Your task to perform on an android device: Open network settings Image 0: 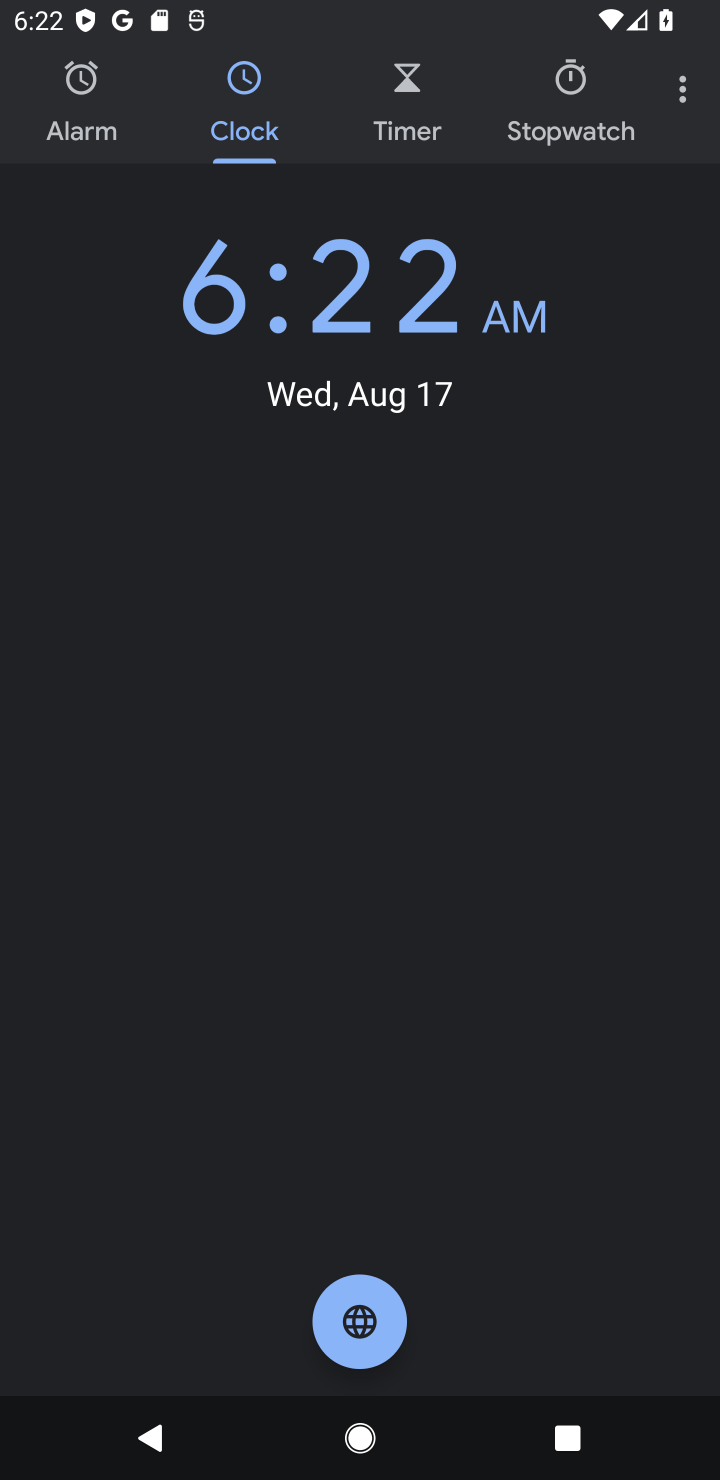
Step 0: press home button
Your task to perform on an android device: Open network settings Image 1: 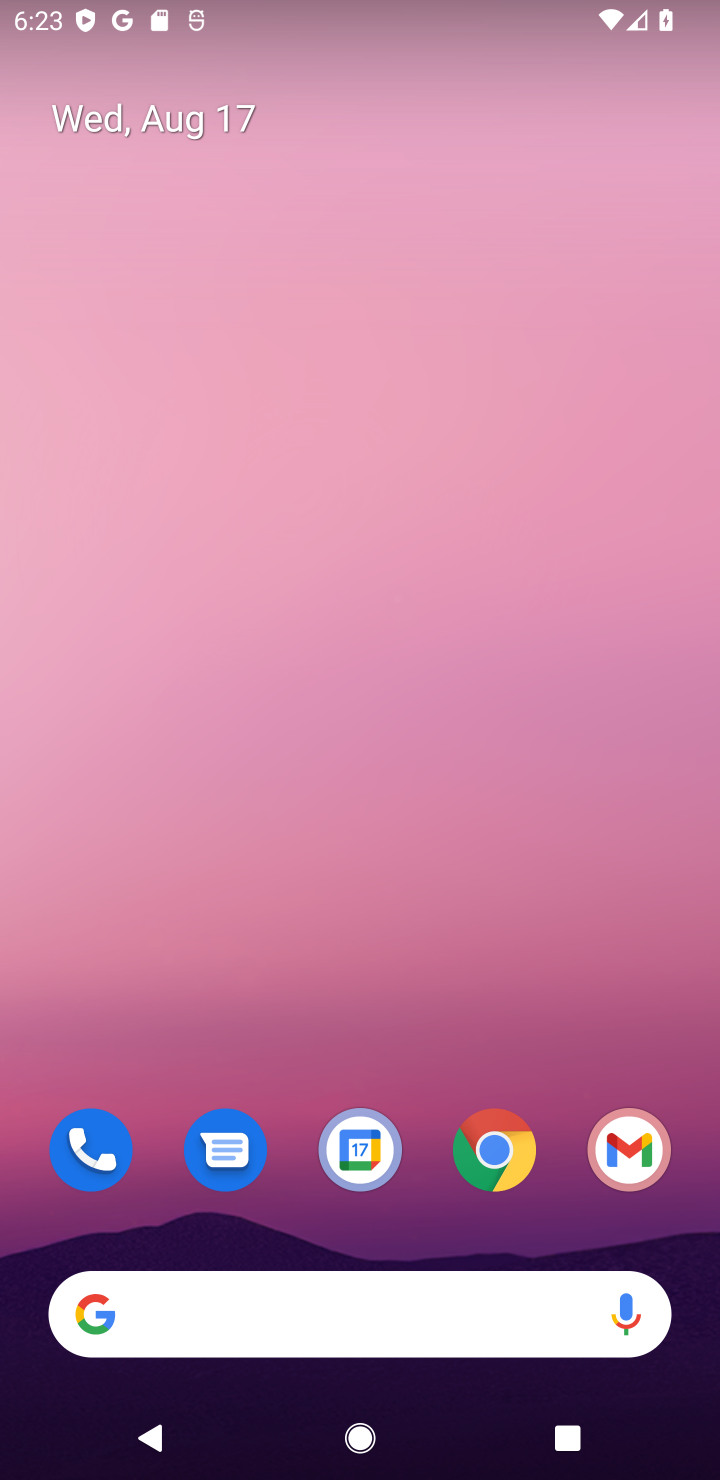
Step 1: drag from (280, 1279) to (351, 223)
Your task to perform on an android device: Open network settings Image 2: 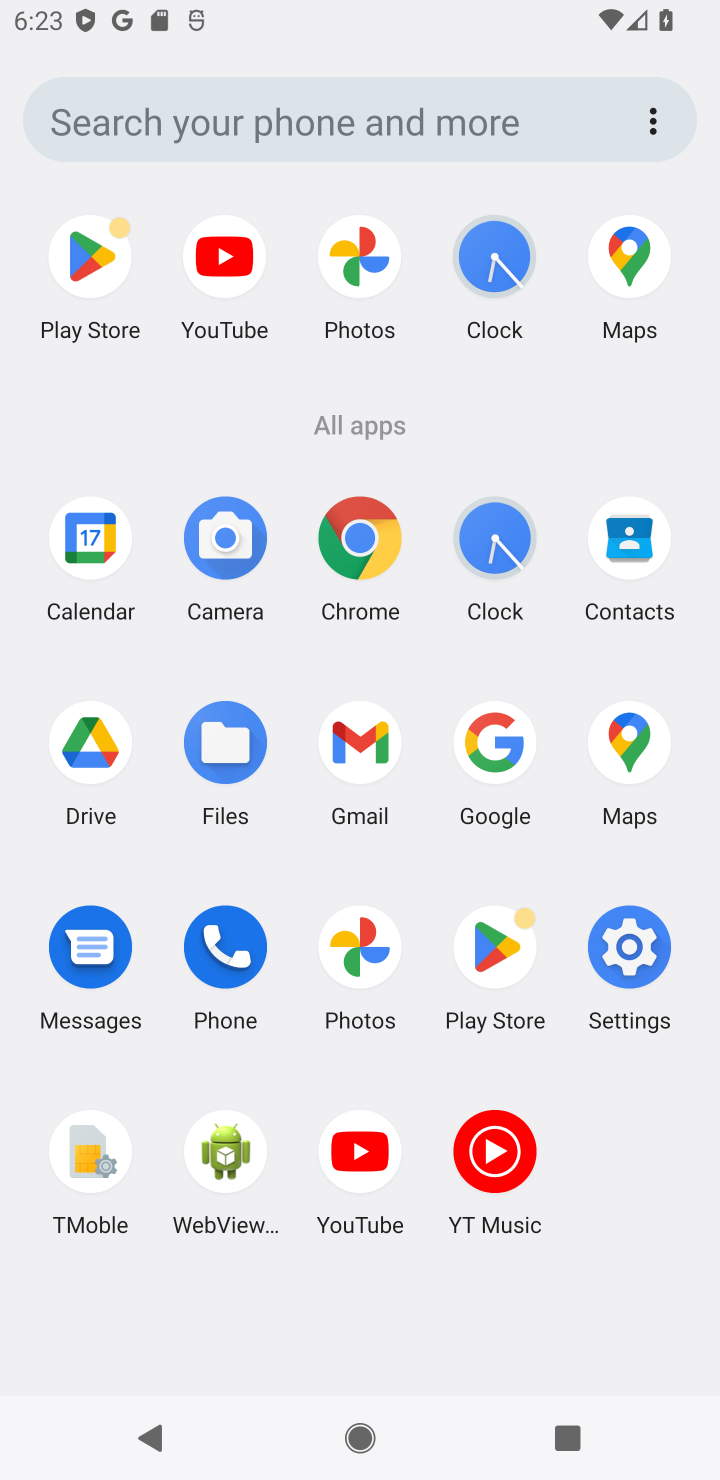
Step 2: click (638, 952)
Your task to perform on an android device: Open network settings Image 3: 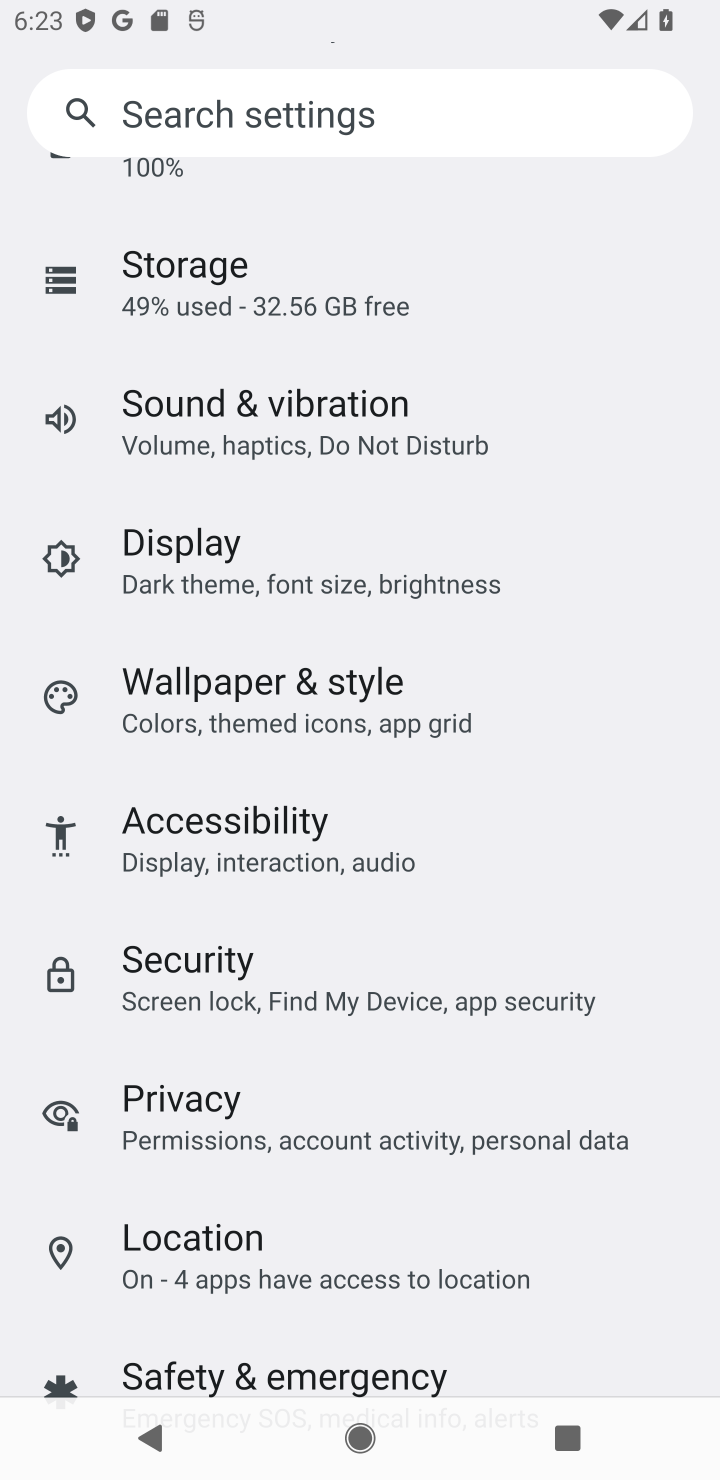
Step 3: drag from (263, 291) to (267, 1136)
Your task to perform on an android device: Open network settings Image 4: 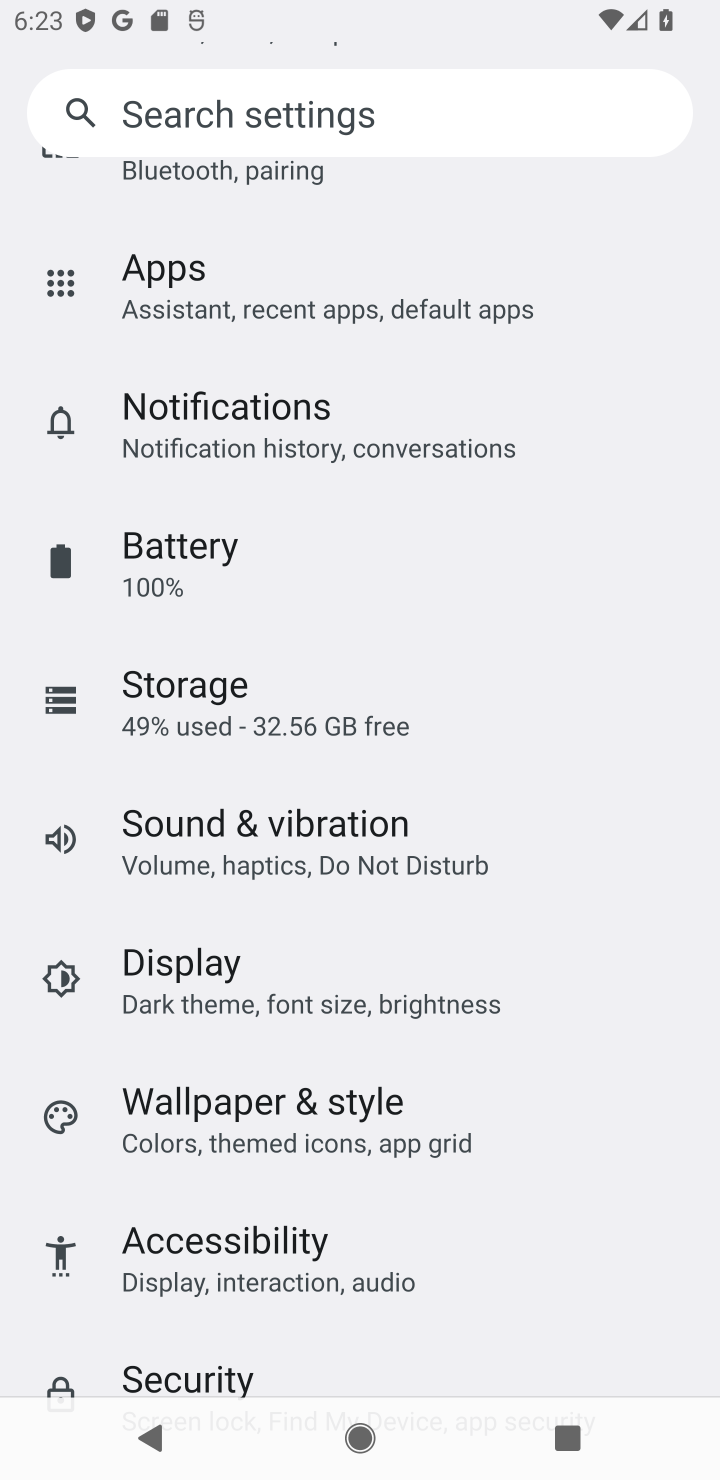
Step 4: drag from (316, 518) to (338, 1180)
Your task to perform on an android device: Open network settings Image 5: 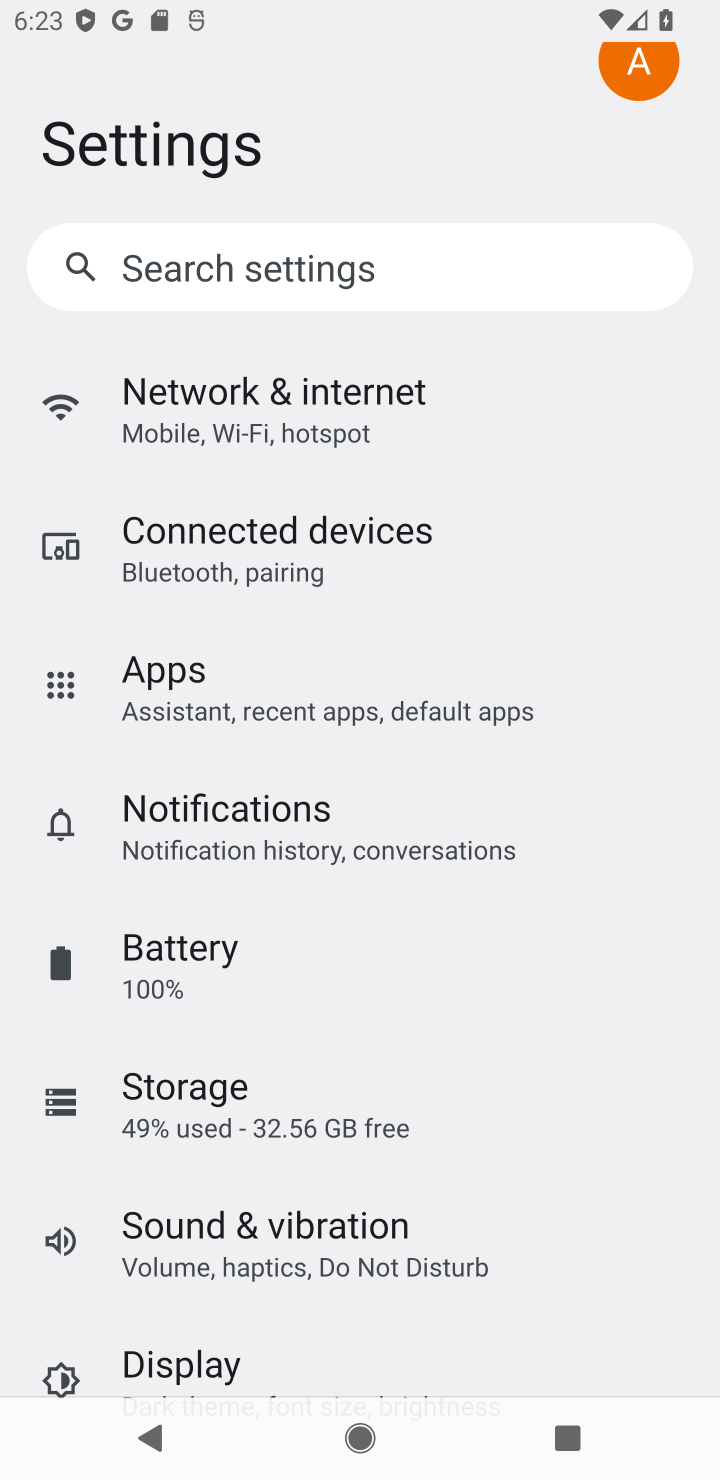
Step 5: click (308, 396)
Your task to perform on an android device: Open network settings Image 6: 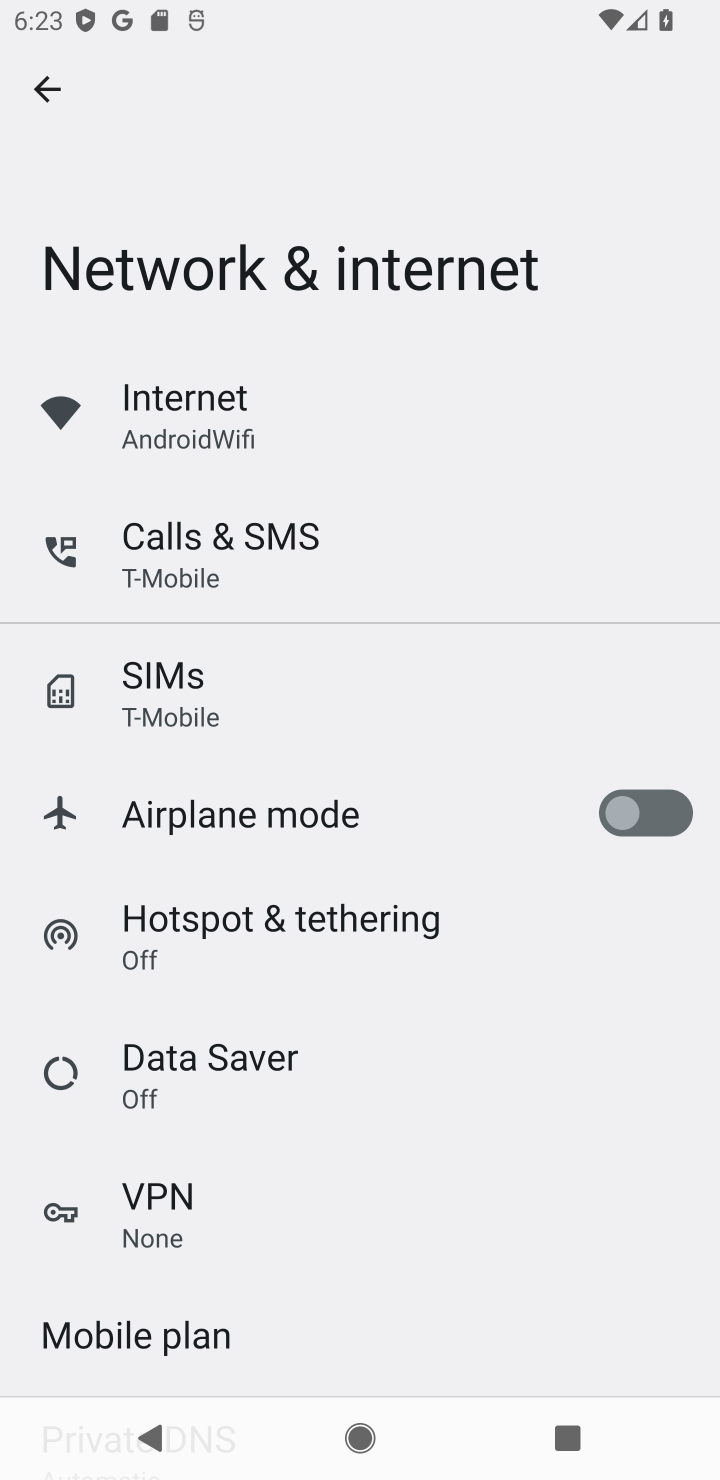
Step 6: click (178, 433)
Your task to perform on an android device: Open network settings Image 7: 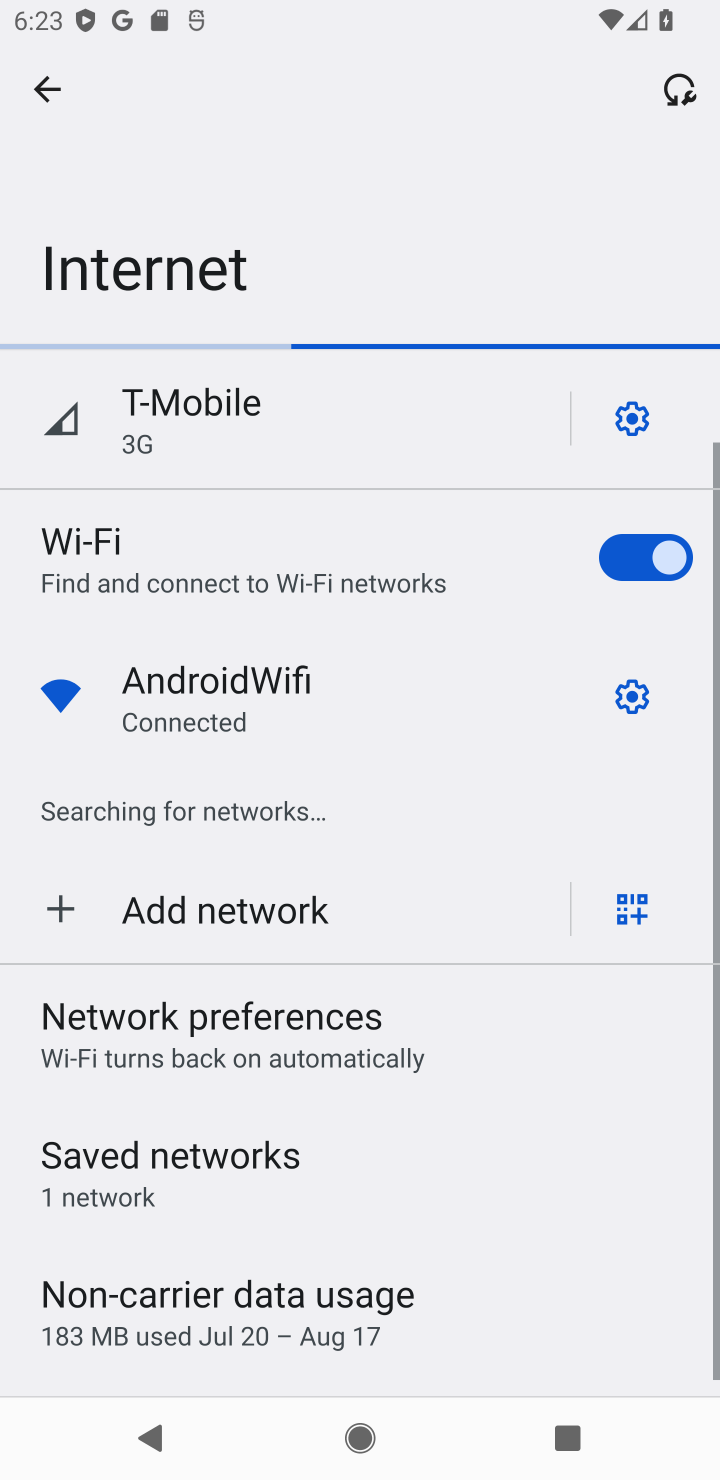
Step 7: task complete